Your task to perform on an android device: set the timer Image 0: 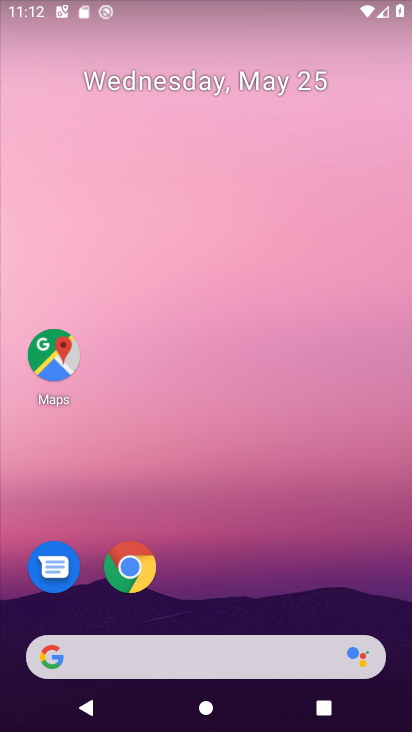
Step 0: drag from (247, 584) to (251, 68)
Your task to perform on an android device: set the timer Image 1: 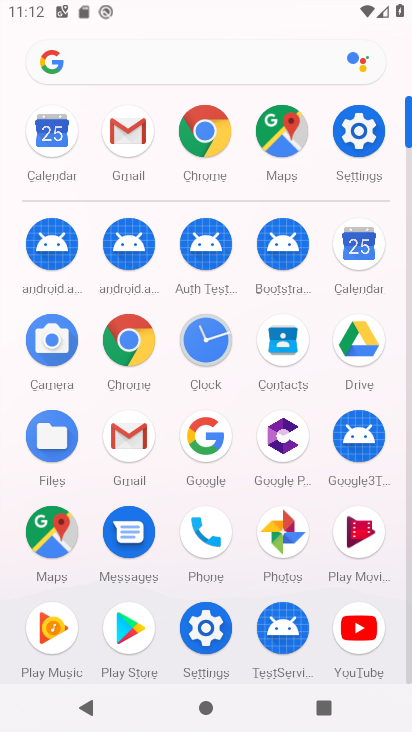
Step 1: click (207, 335)
Your task to perform on an android device: set the timer Image 2: 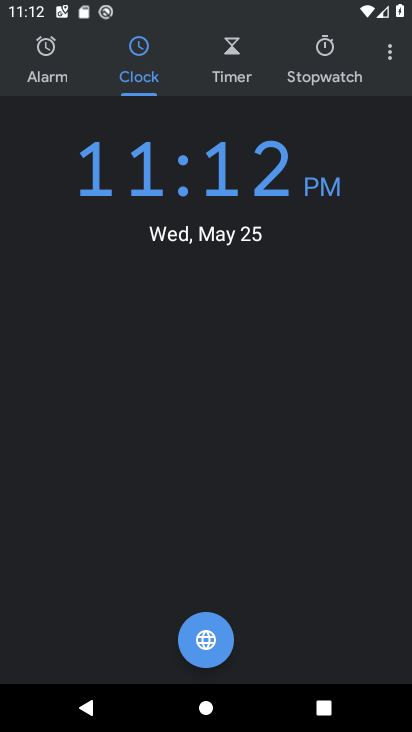
Step 2: click (237, 52)
Your task to perform on an android device: set the timer Image 3: 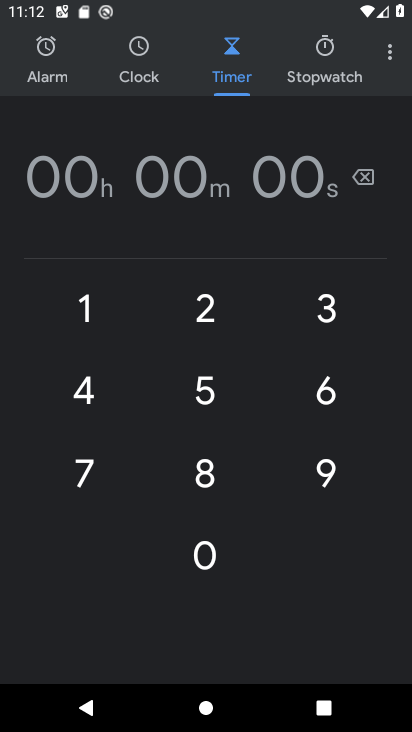
Step 3: click (100, 301)
Your task to perform on an android device: set the timer Image 4: 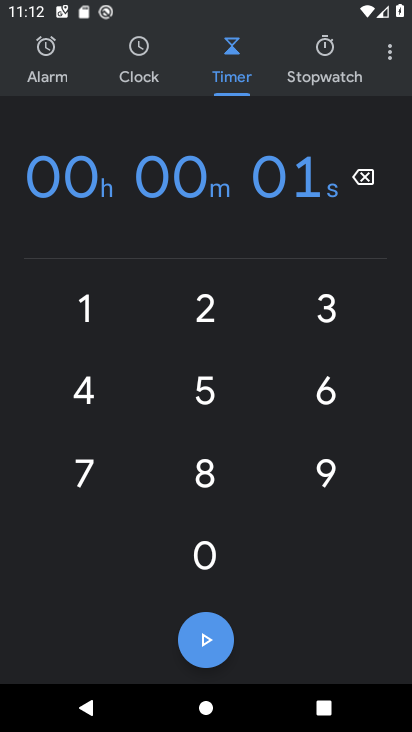
Step 4: click (190, 319)
Your task to perform on an android device: set the timer Image 5: 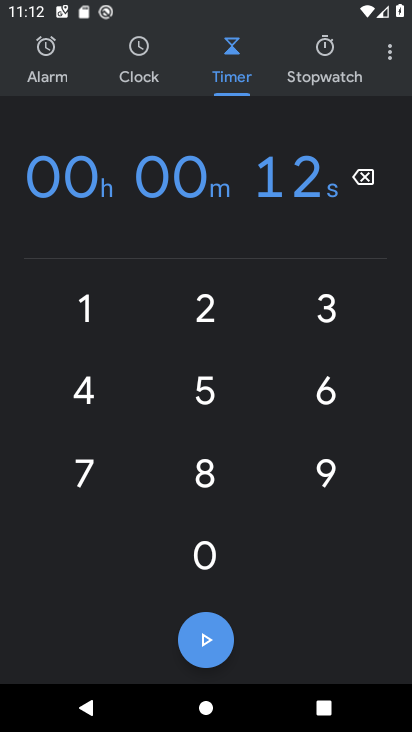
Step 5: click (336, 320)
Your task to perform on an android device: set the timer Image 6: 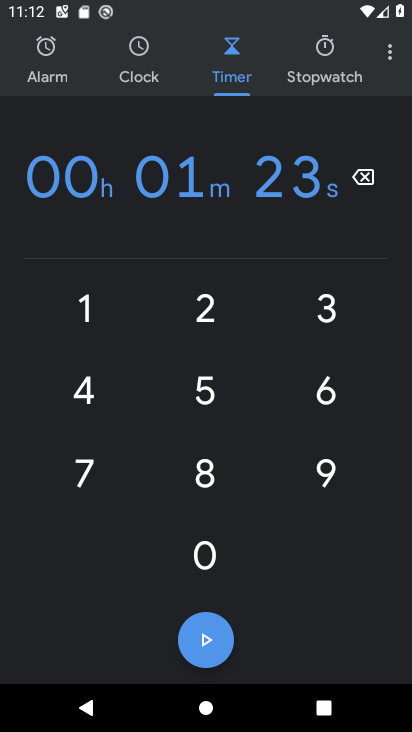
Step 6: click (91, 389)
Your task to perform on an android device: set the timer Image 7: 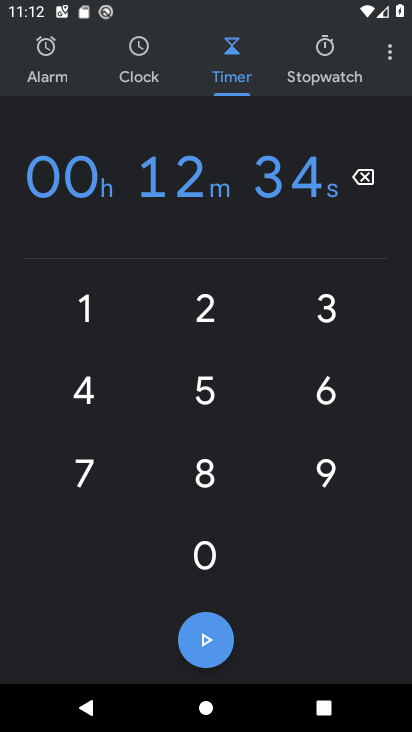
Step 7: click (210, 404)
Your task to perform on an android device: set the timer Image 8: 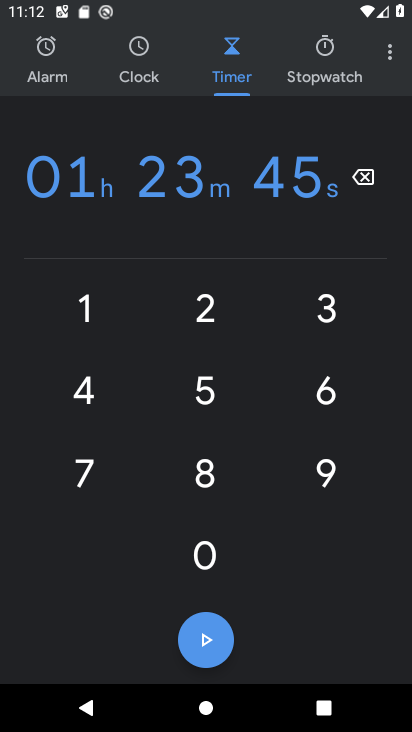
Step 8: click (222, 643)
Your task to perform on an android device: set the timer Image 9: 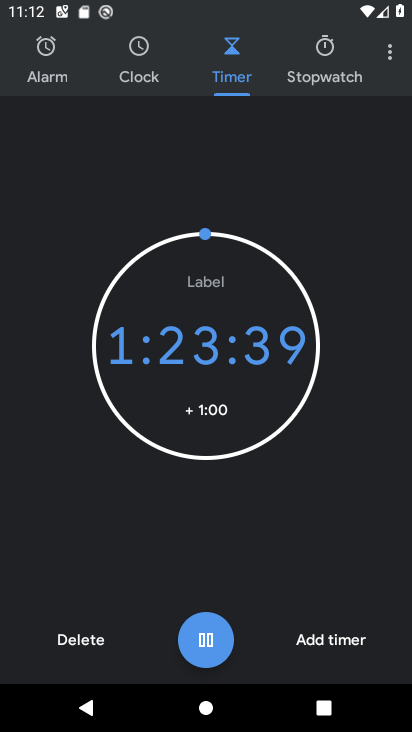
Step 9: task complete